Your task to perform on an android device: check data usage Image 0: 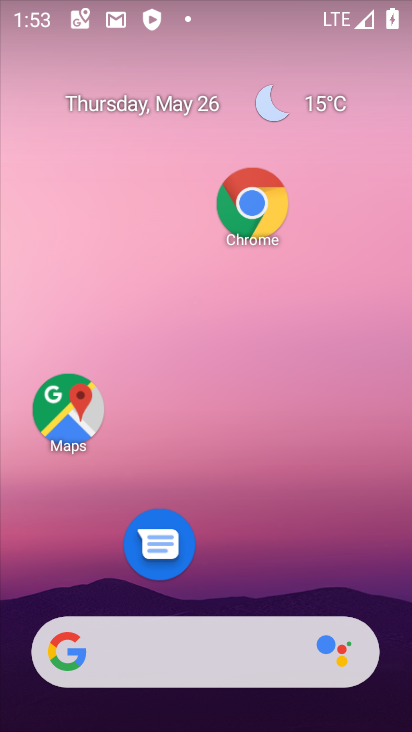
Step 0: drag from (197, 711) to (335, 0)
Your task to perform on an android device: check data usage Image 1: 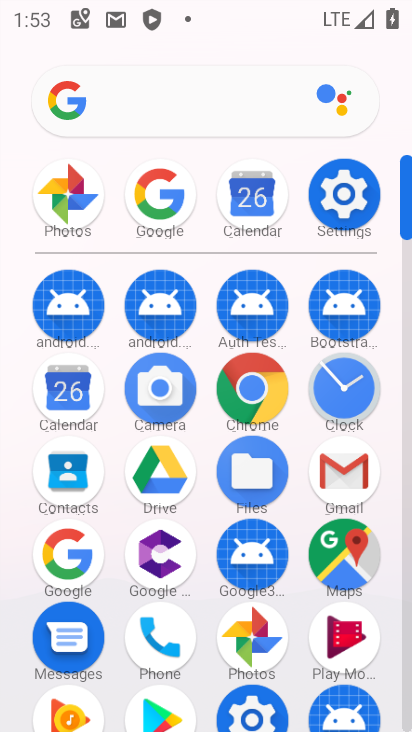
Step 1: click (344, 182)
Your task to perform on an android device: check data usage Image 2: 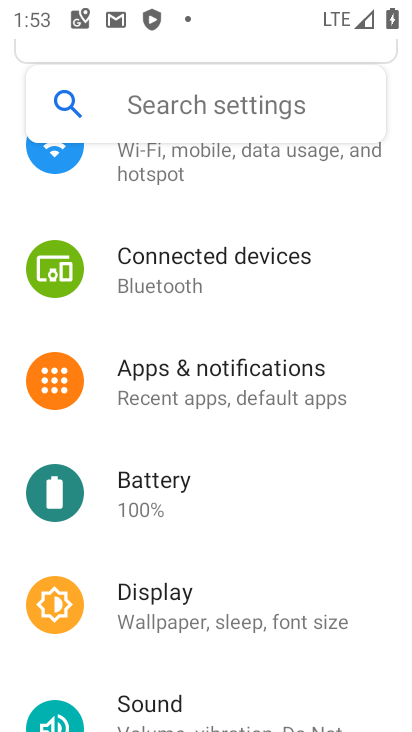
Step 2: click (295, 160)
Your task to perform on an android device: check data usage Image 3: 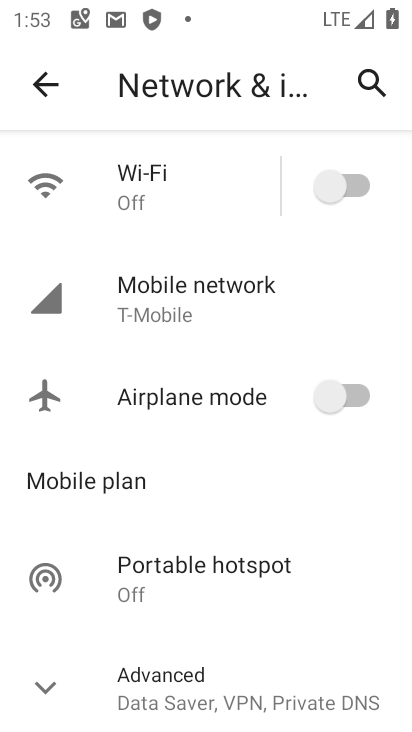
Step 3: click (212, 305)
Your task to perform on an android device: check data usage Image 4: 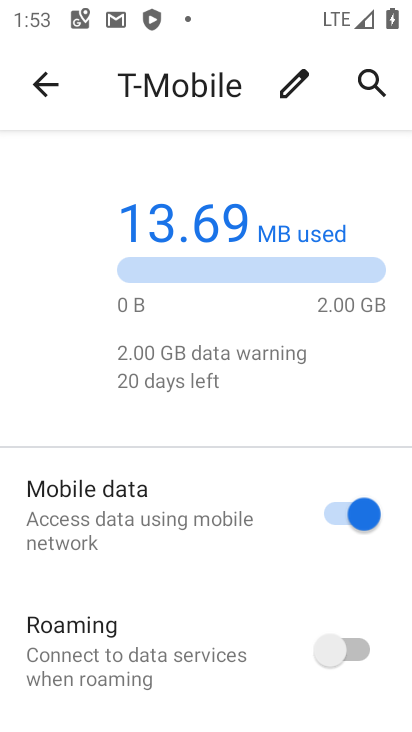
Step 4: task complete